Your task to perform on an android device: check the backup settings in the google photos Image 0: 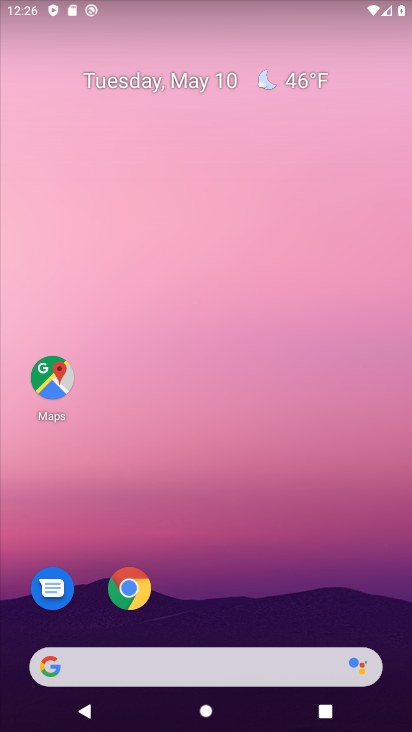
Step 0: drag from (215, 643) to (379, 25)
Your task to perform on an android device: check the backup settings in the google photos Image 1: 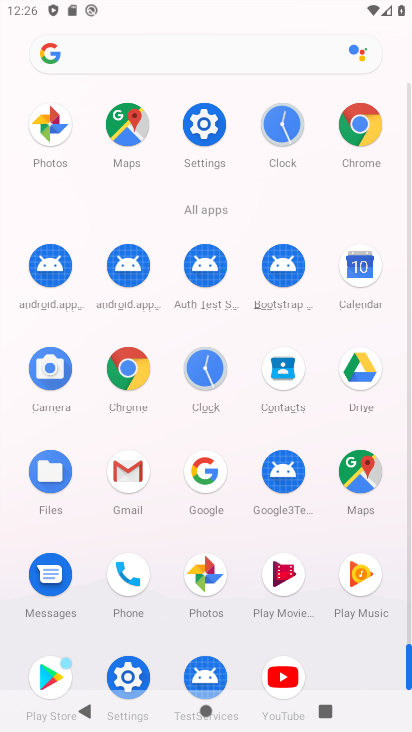
Step 1: click (198, 560)
Your task to perform on an android device: check the backup settings in the google photos Image 2: 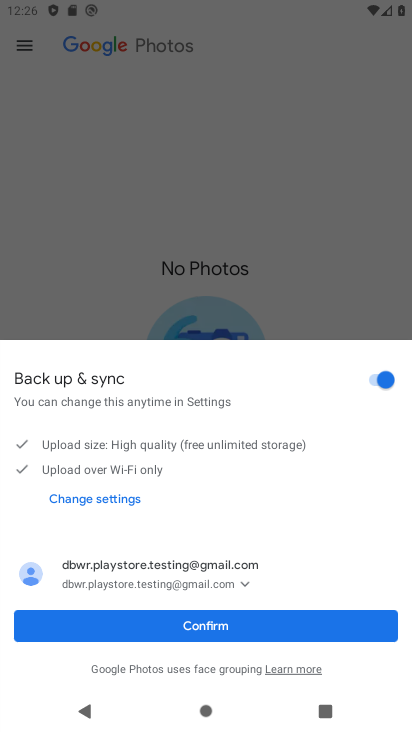
Step 2: drag from (174, 630) to (160, 299)
Your task to perform on an android device: check the backup settings in the google photos Image 3: 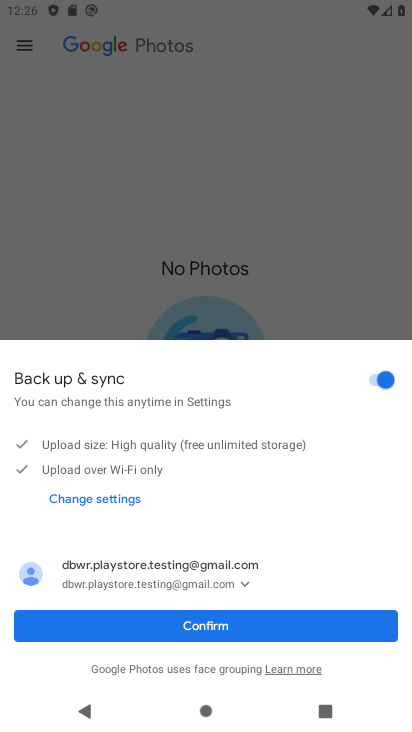
Step 3: click (98, 505)
Your task to perform on an android device: check the backup settings in the google photos Image 4: 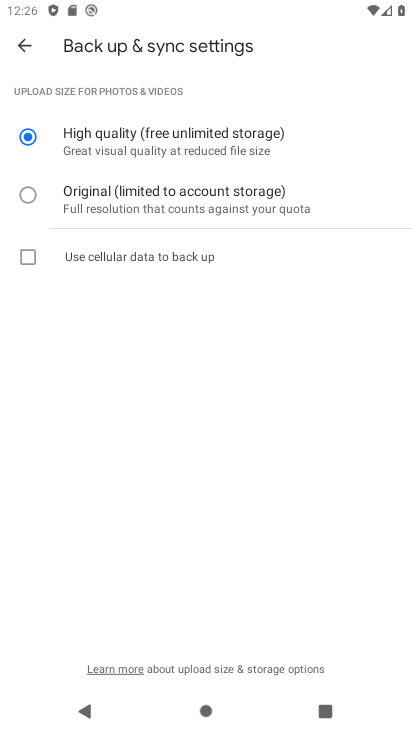
Step 4: click (24, 42)
Your task to perform on an android device: check the backup settings in the google photos Image 5: 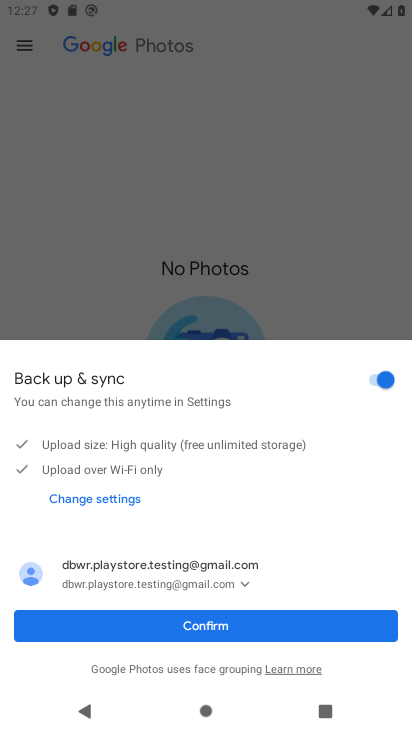
Step 5: task complete